Your task to perform on an android device: turn on bluetooth scan Image 0: 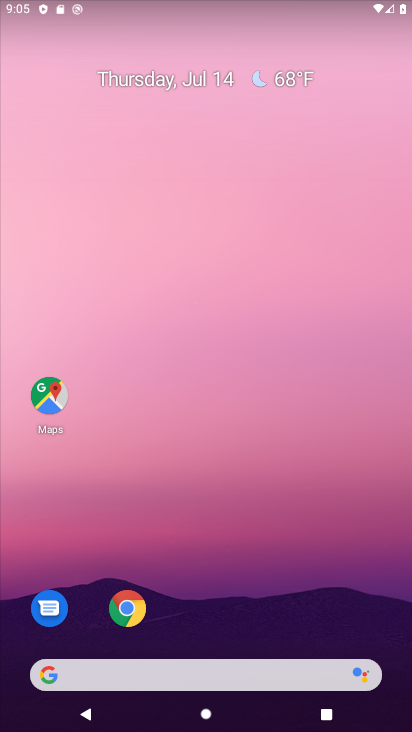
Step 0: drag from (187, 665) to (192, 113)
Your task to perform on an android device: turn on bluetooth scan Image 1: 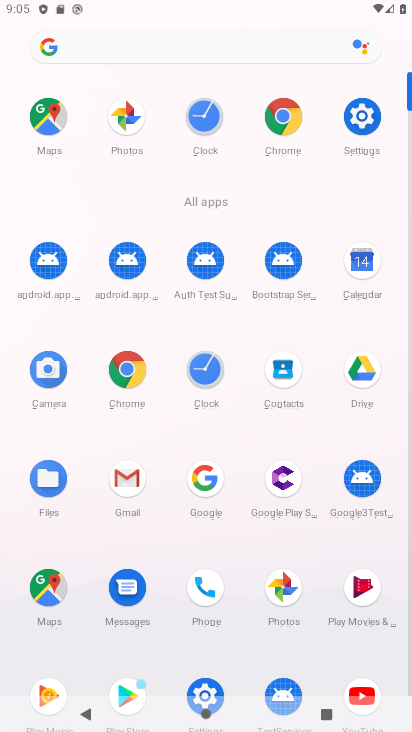
Step 1: click (359, 111)
Your task to perform on an android device: turn on bluetooth scan Image 2: 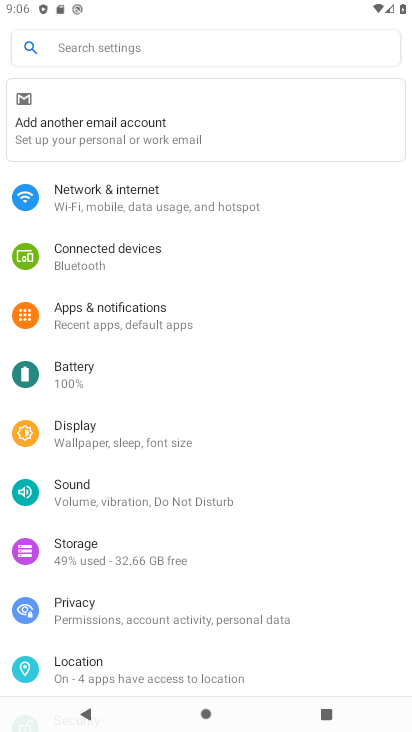
Step 2: drag from (128, 628) to (154, 232)
Your task to perform on an android device: turn on bluetooth scan Image 3: 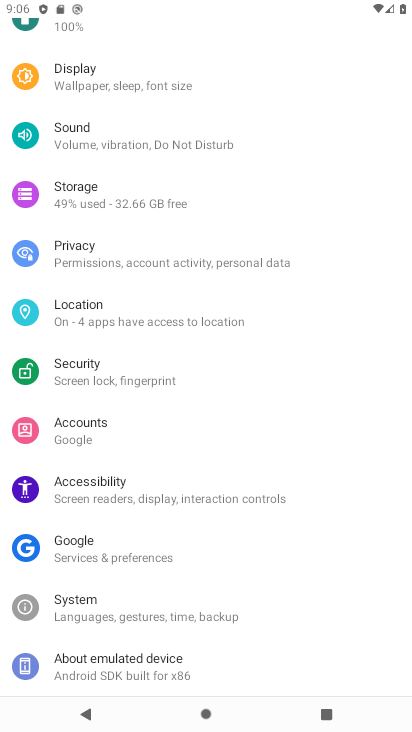
Step 3: click (93, 333)
Your task to perform on an android device: turn on bluetooth scan Image 4: 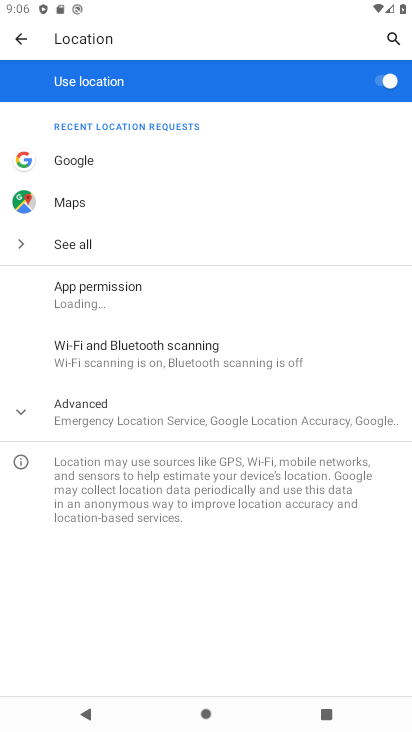
Step 4: click (105, 363)
Your task to perform on an android device: turn on bluetooth scan Image 5: 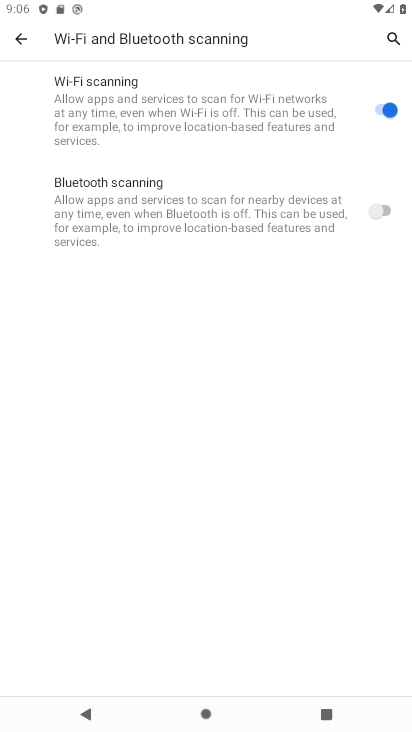
Step 5: click (384, 214)
Your task to perform on an android device: turn on bluetooth scan Image 6: 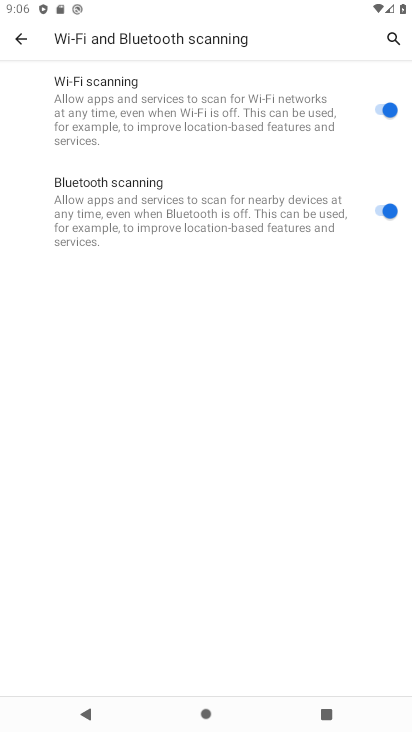
Step 6: task complete